Your task to perform on an android device: Open ESPN.com Image 0: 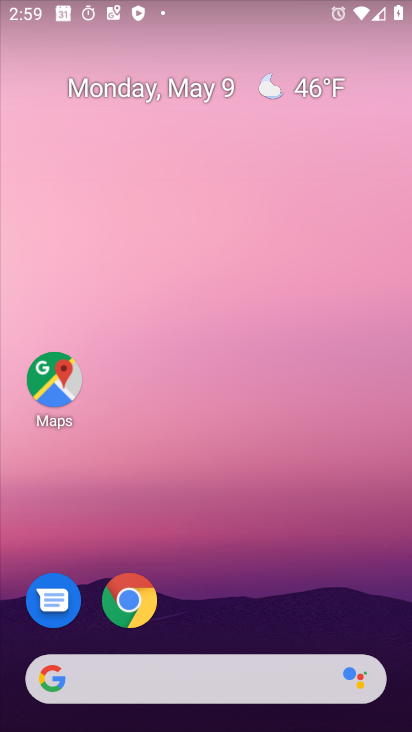
Step 0: click (134, 602)
Your task to perform on an android device: Open ESPN.com Image 1: 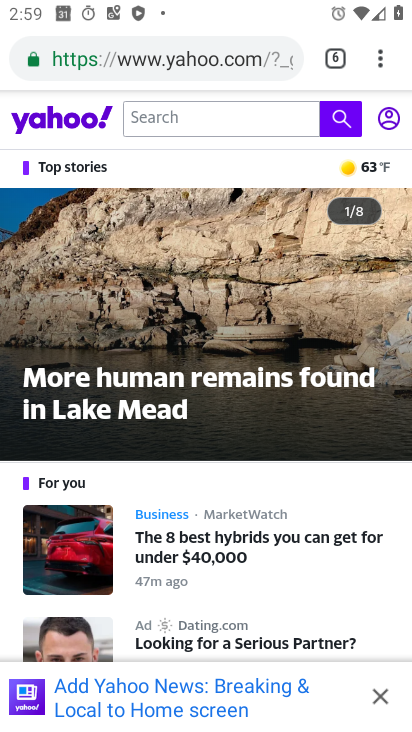
Step 1: click (327, 50)
Your task to perform on an android device: Open ESPN.com Image 2: 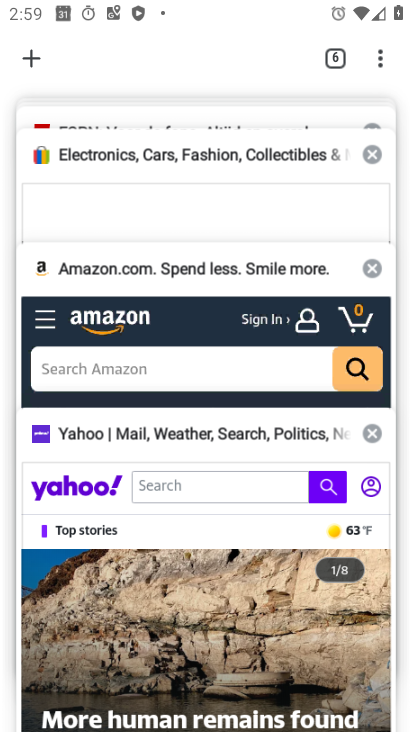
Step 2: drag from (110, 167) to (101, 625)
Your task to perform on an android device: Open ESPN.com Image 3: 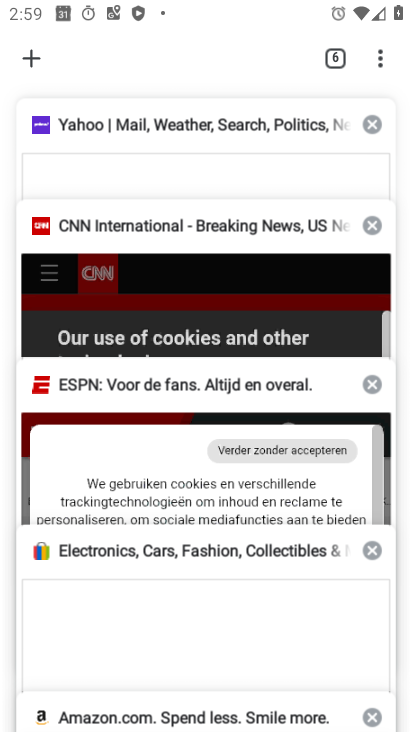
Step 3: click (77, 390)
Your task to perform on an android device: Open ESPN.com Image 4: 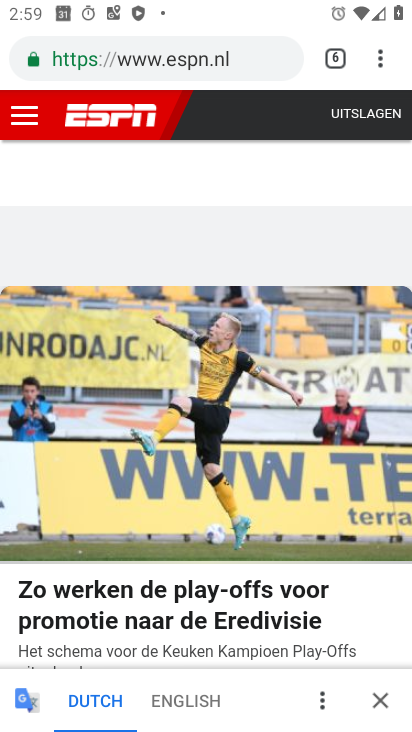
Step 4: task complete